Your task to perform on an android device: Search for the best rated TV on Target Image 0: 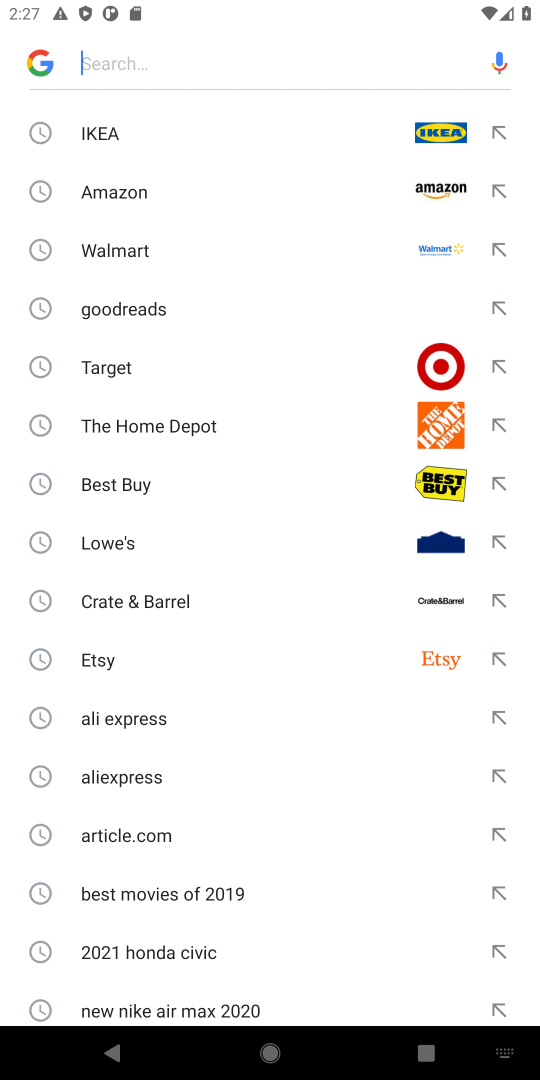
Step 0: press home button
Your task to perform on an android device: Search for the best rated TV on Target Image 1: 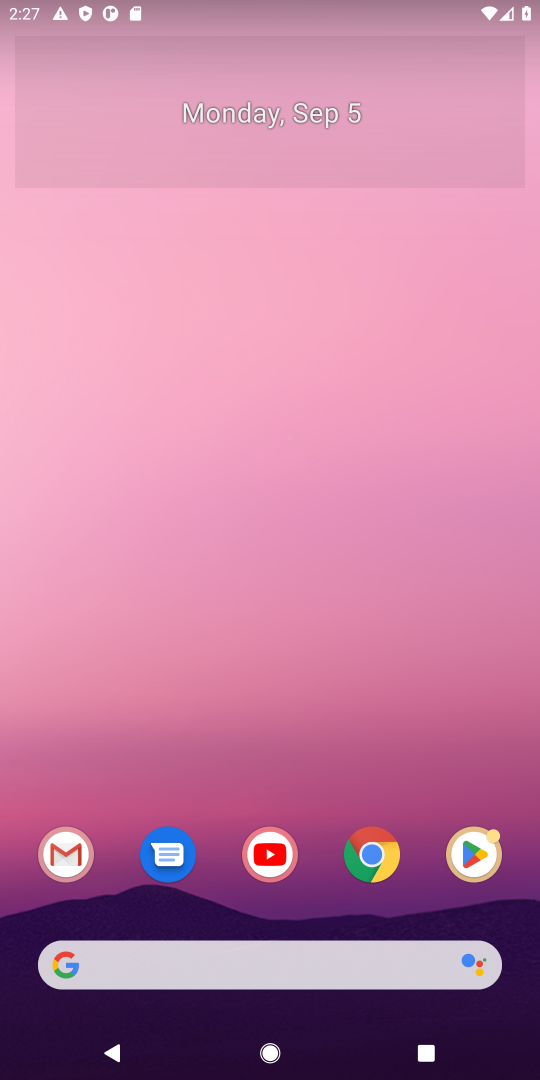
Step 1: click (251, 944)
Your task to perform on an android device: Search for the best rated TV on Target Image 2: 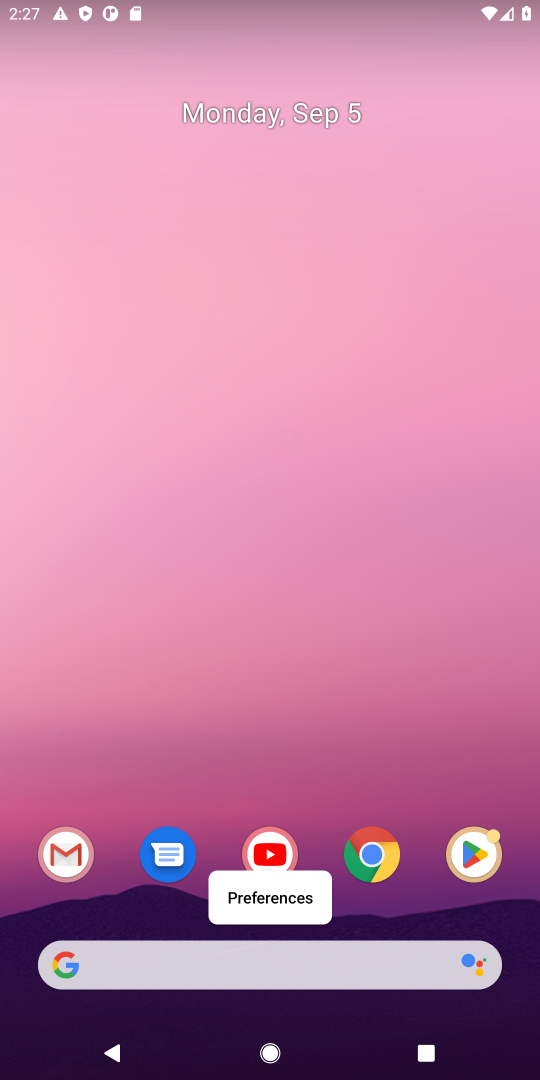
Step 2: click (211, 961)
Your task to perform on an android device: Search for the best rated TV on Target Image 3: 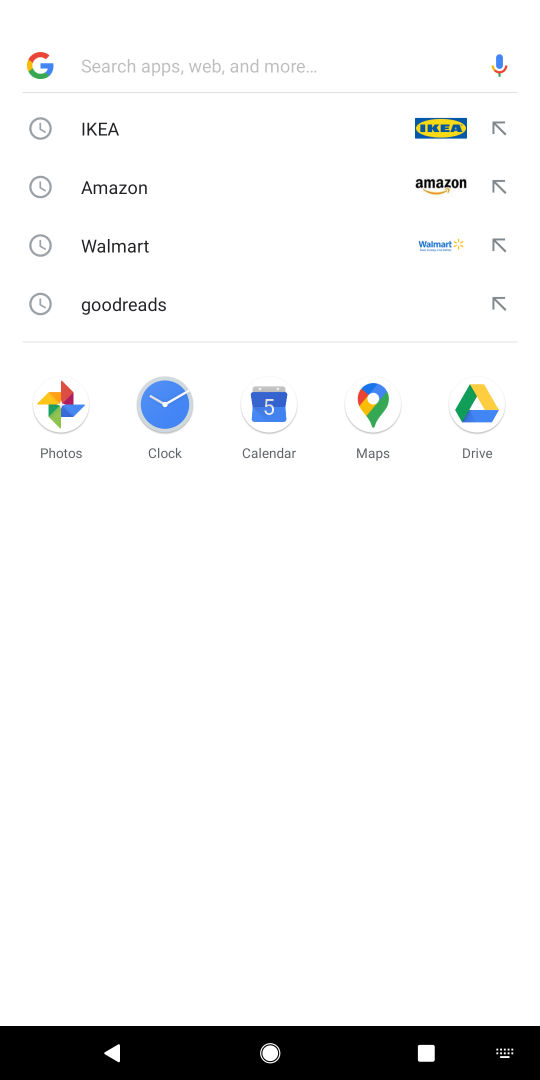
Step 3: press enter
Your task to perform on an android device: Search for the best rated TV on Target Image 4: 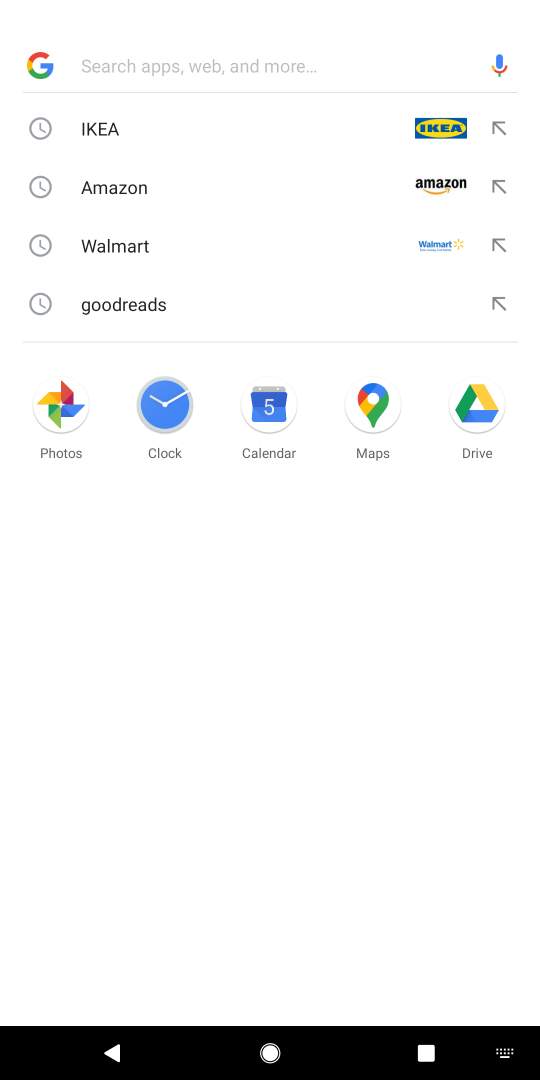
Step 4: type "target"
Your task to perform on an android device: Search for the best rated TV on Target Image 5: 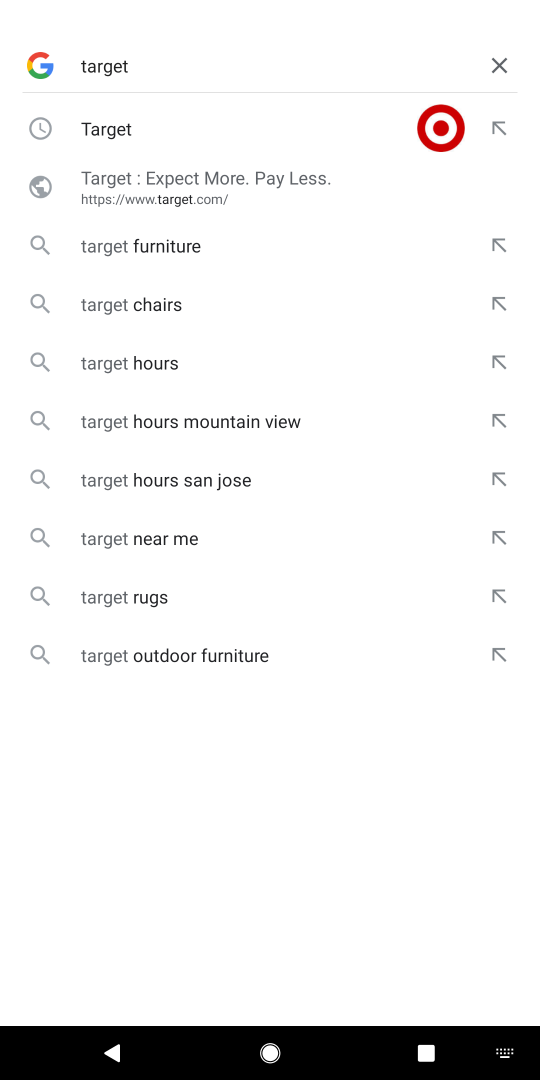
Step 5: click (222, 112)
Your task to perform on an android device: Search for the best rated TV on Target Image 6: 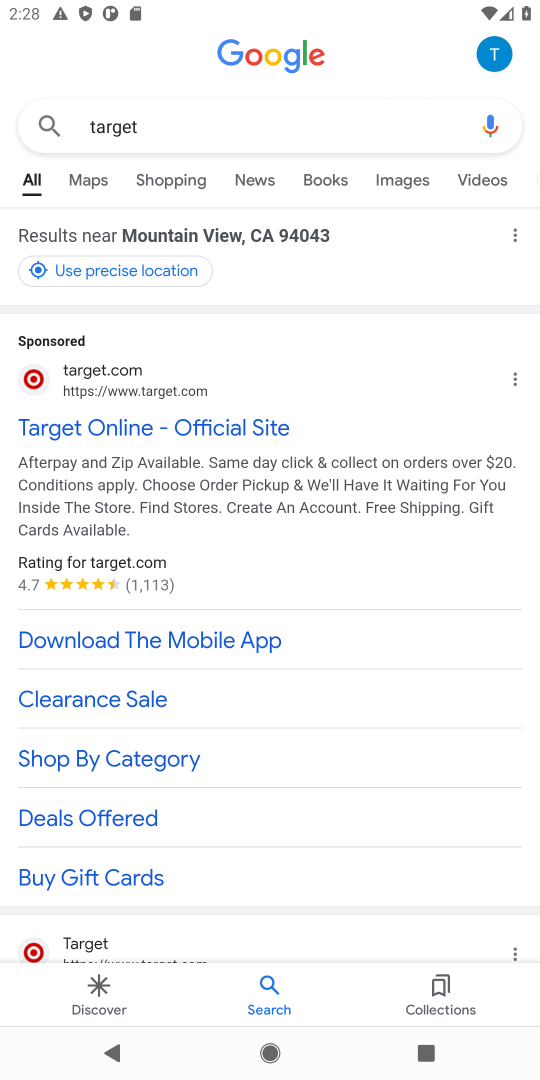
Step 6: click (195, 427)
Your task to perform on an android device: Search for the best rated TV on Target Image 7: 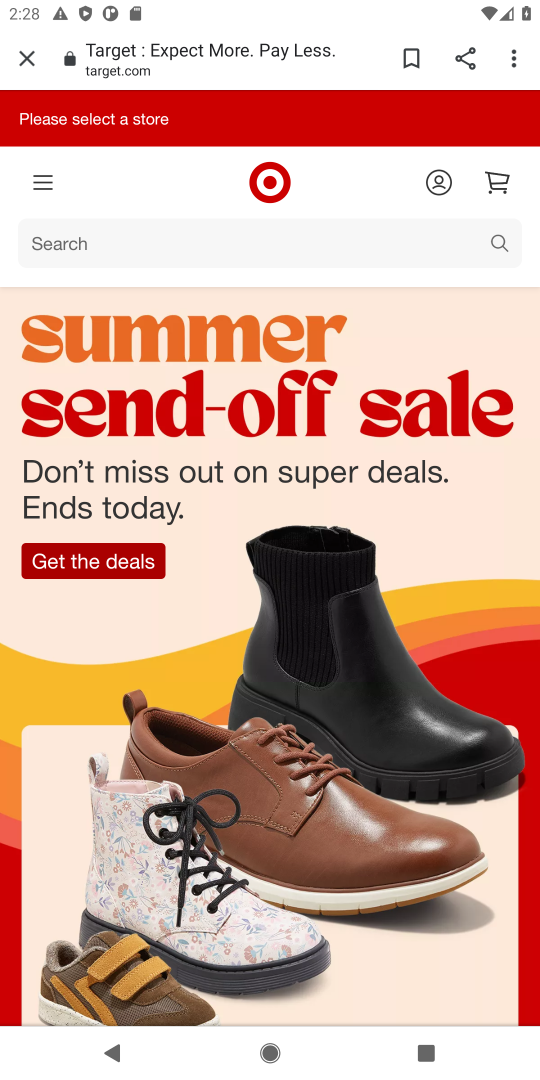
Step 7: click (111, 234)
Your task to perform on an android device: Search for the best rated TV on Target Image 8: 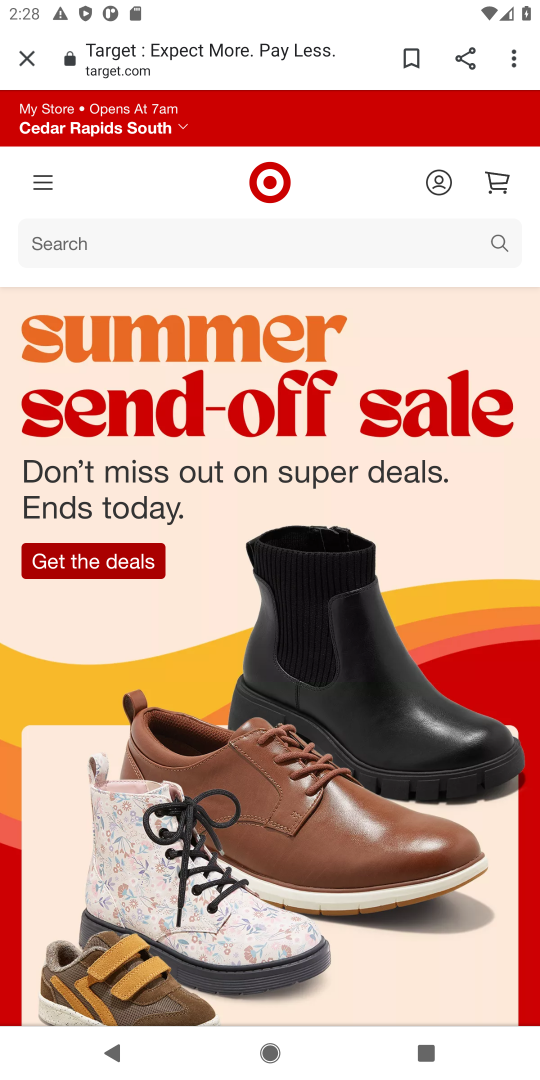
Step 8: click (97, 239)
Your task to perform on an android device: Search for the best rated TV on Target Image 9: 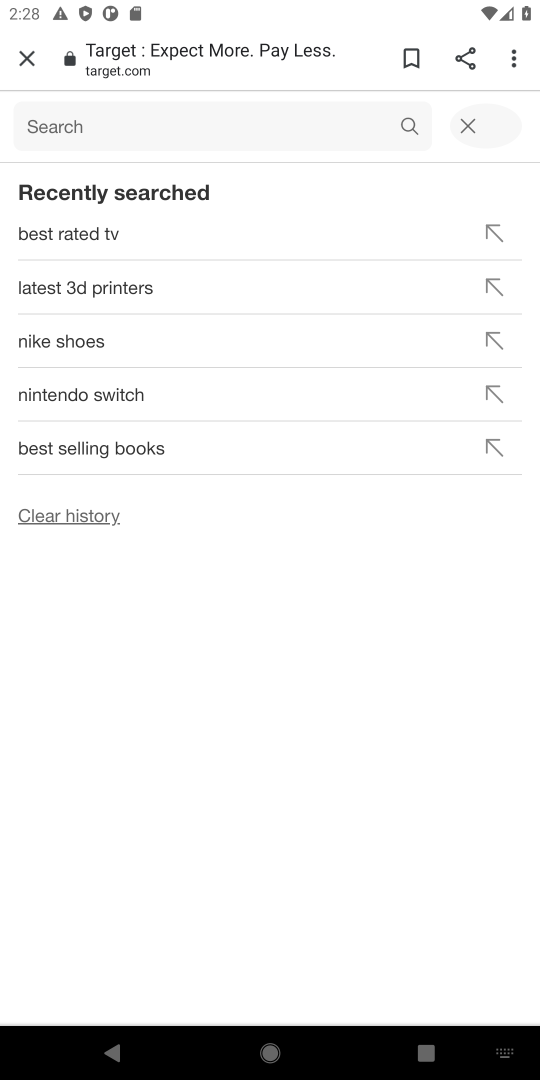
Step 9: type "best rated tv"
Your task to perform on an android device: Search for the best rated TV on Target Image 10: 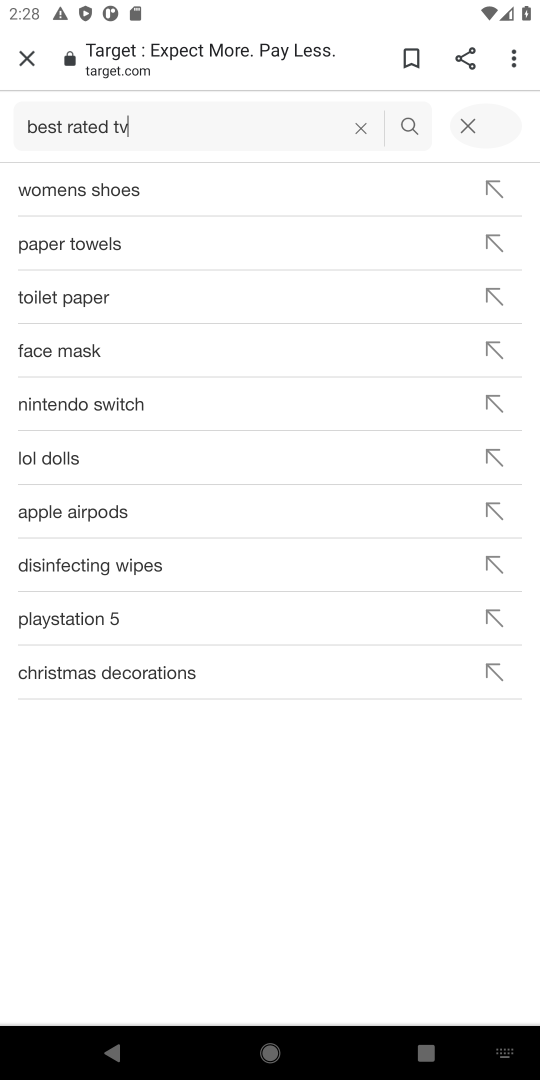
Step 10: press enter
Your task to perform on an android device: Search for the best rated TV on Target Image 11: 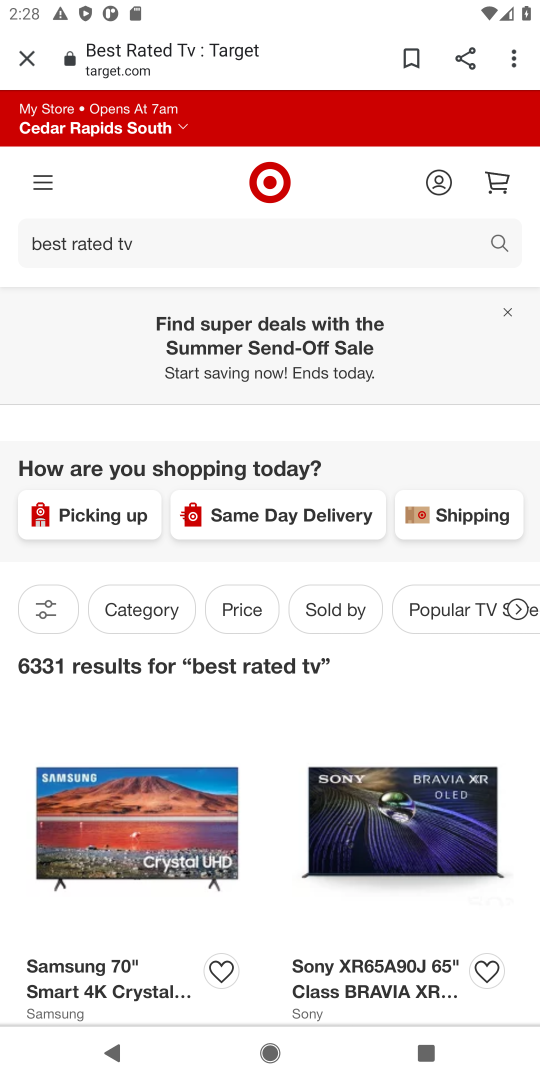
Step 11: task complete